Your task to perform on an android device: Open calendar and show me the second week of next month Image 0: 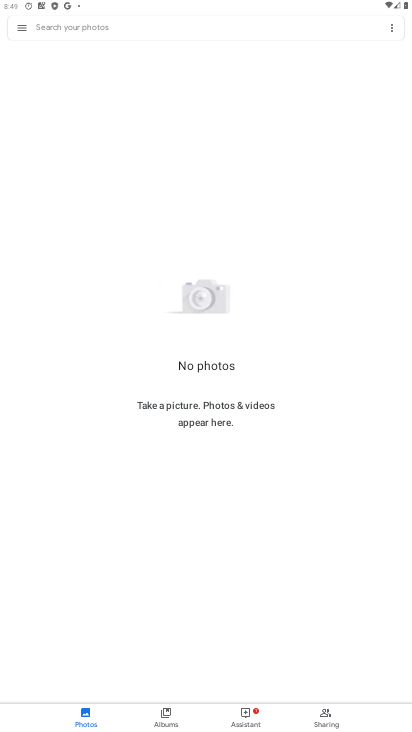
Step 0: drag from (179, 586) to (210, 226)
Your task to perform on an android device: Open calendar and show me the second week of next month Image 1: 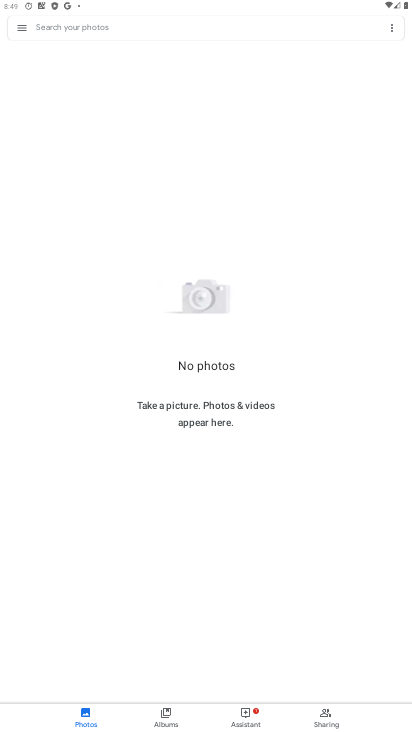
Step 1: drag from (216, 523) to (185, 226)
Your task to perform on an android device: Open calendar and show me the second week of next month Image 2: 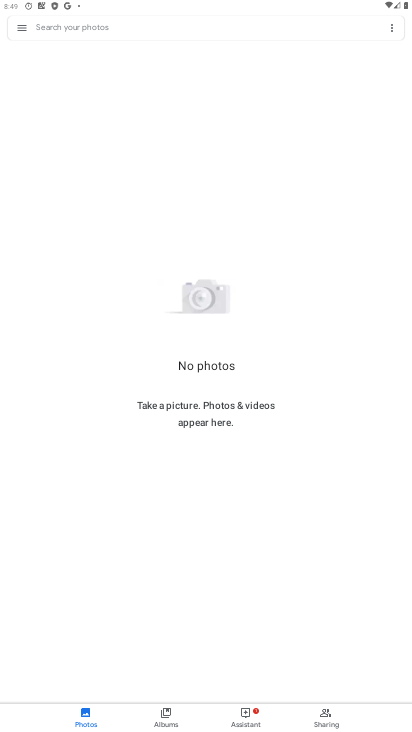
Step 2: drag from (105, 655) to (207, 199)
Your task to perform on an android device: Open calendar and show me the second week of next month Image 3: 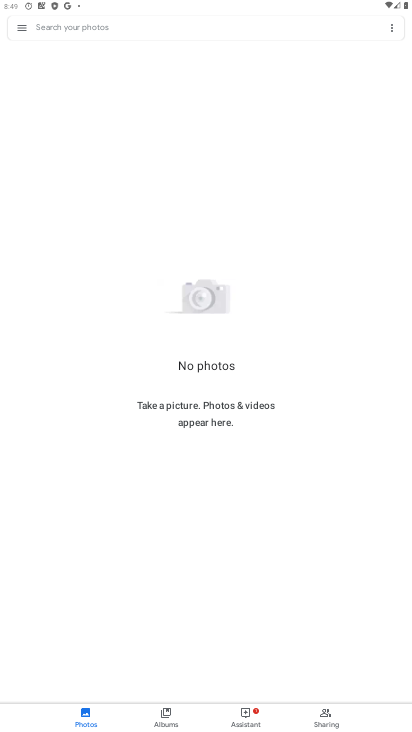
Step 3: drag from (272, 588) to (174, 159)
Your task to perform on an android device: Open calendar and show me the second week of next month Image 4: 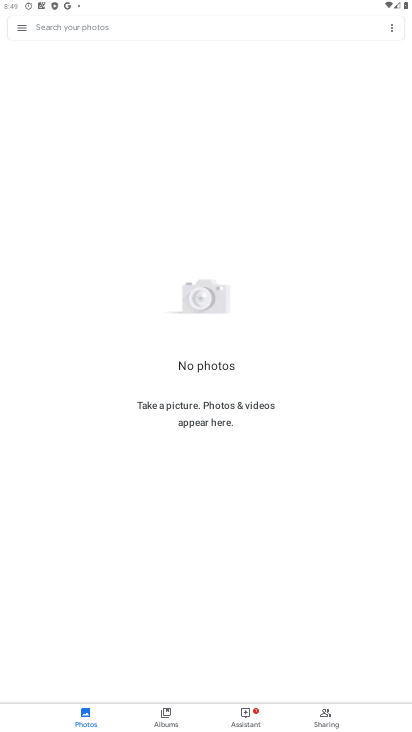
Step 4: press home button
Your task to perform on an android device: Open calendar and show me the second week of next month Image 5: 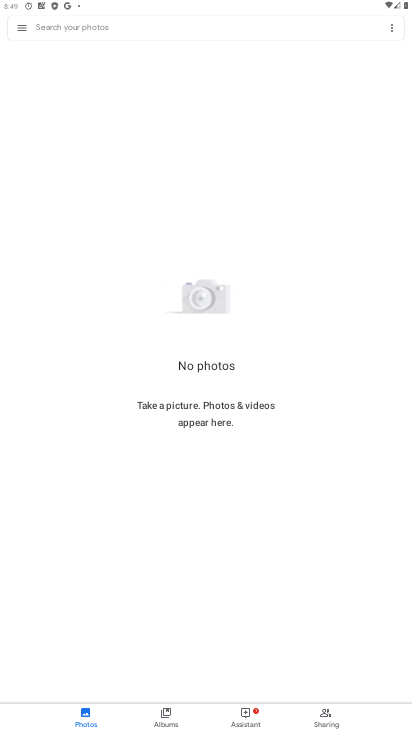
Step 5: press home button
Your task to perform on an android device: Open calendar and show me the second week of next month Image 6: 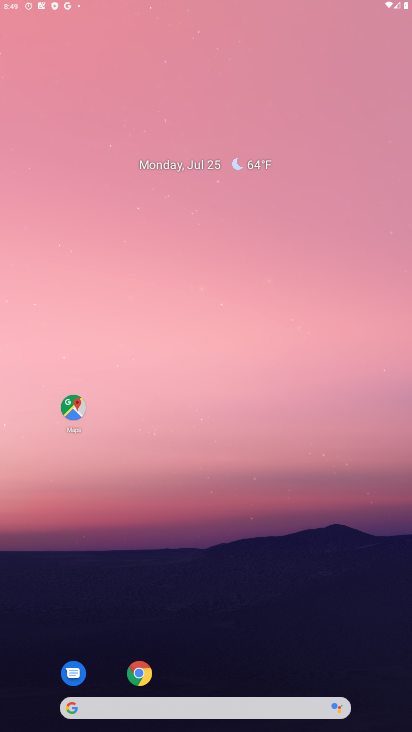
Step 6: click (228, 155)
Your task to perform on an android device: Open calendar and show me the second week of next month Image 7: 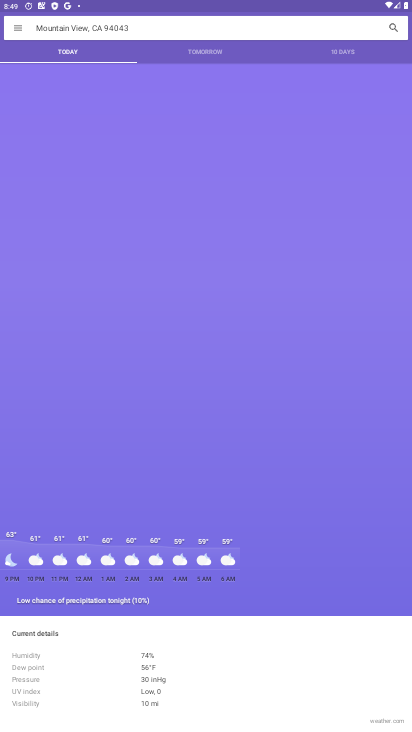
Step 7: press home button
Your task to perform on an android device: Open calendar and show me the second week of next month Image 8: 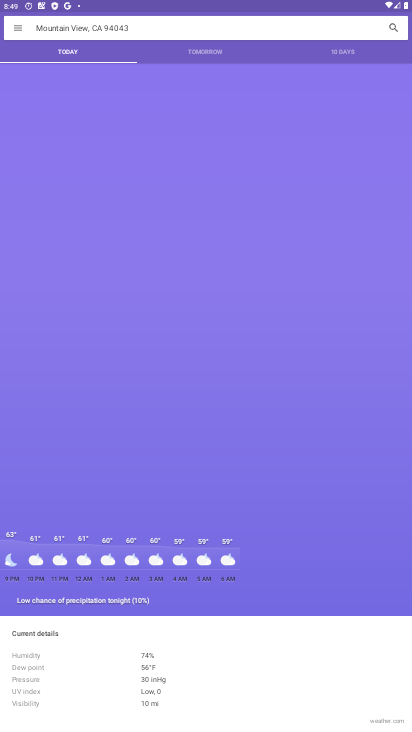
Step 8: press home button
Your task to perform on an android device: Open calendar and show me the second week of next month Image 9: 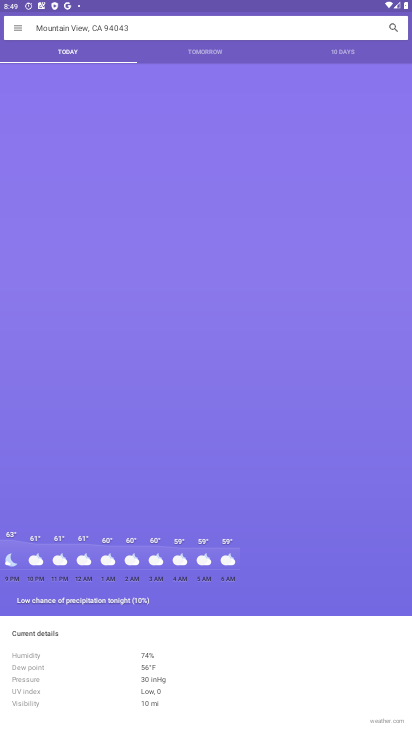
Step 9: drag from (211, 289) to (210, 37)
Your task to perform on an android device: Open calendar and show me the second week of next month Image 10: 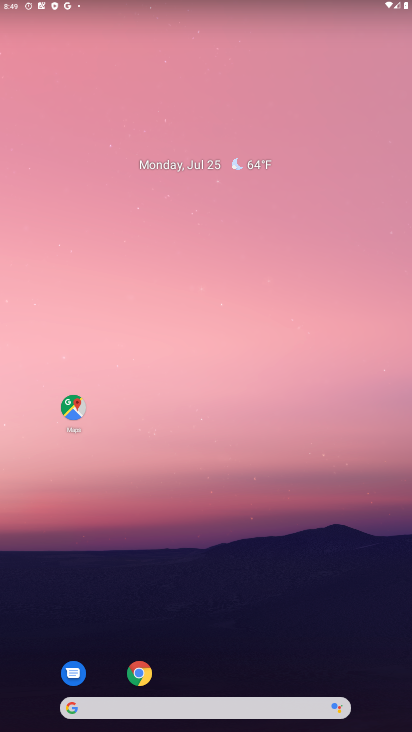
Step 10: press home button
Your task to perform on an android device: Open calendar and show me the second week of next month Image 11: 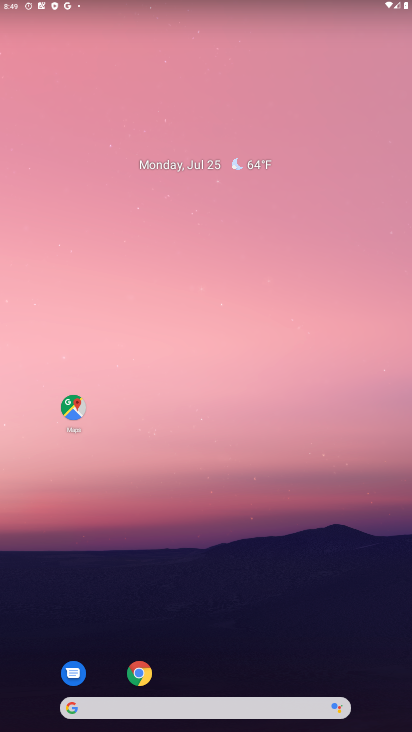
Step 11: drag from (145, 599) to (391, 11)
Your task to perform on an android device: Open calendar and show me the second week of next month Image 12: 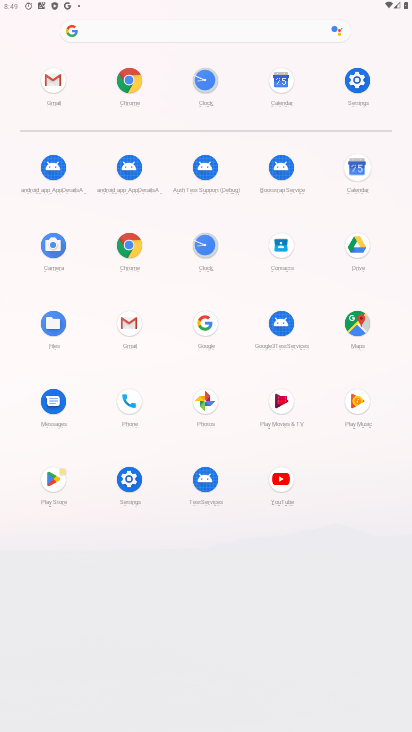
Step 12: click (355, 156)
Your task to perform on an android device: Open calendar and show me the second week of next month Image 13: 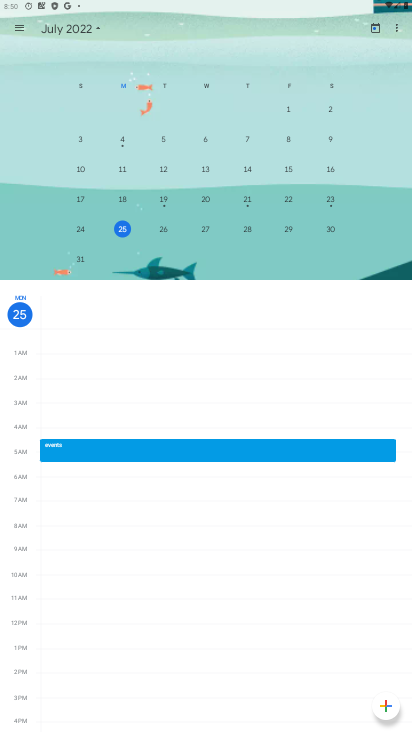
Step 13: drag from (314, 189) to (1, 119)
Your task to perform on an android device: Open calendar and show me the second week of next month Image 14: 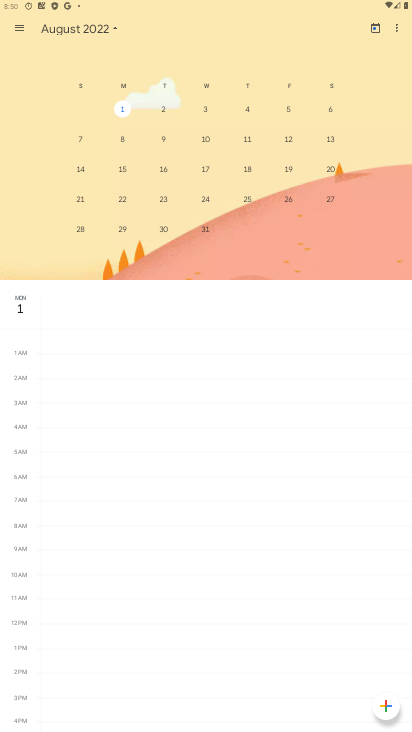
Step 14: click (207, 141)
Your task to perform on an android device: Open calendar and show me the second week of next month Image 15: 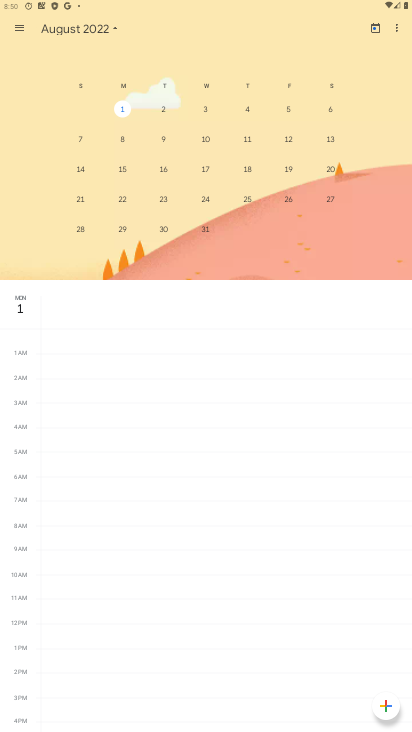
Step 15: click (205, 141)
Your task to perform on an android device: Open calendar and show me the second week of next month Image 16: 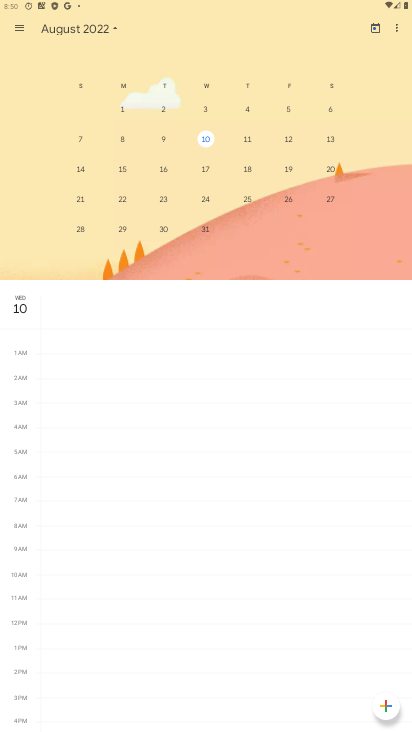
Step 16: task complete